Your task to perform on an android device: turn off improve location accuracy Image 0: 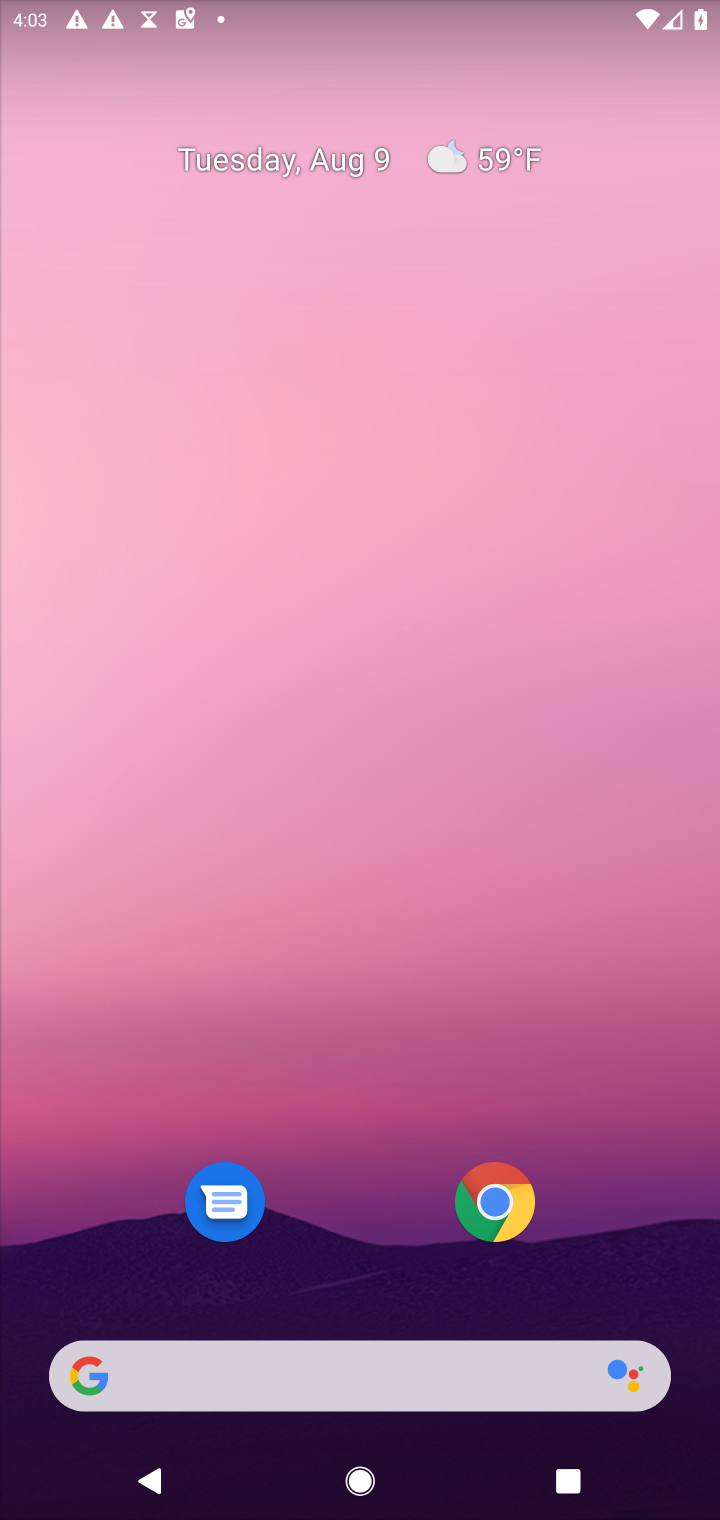
Step 0: press home button
Your task to perform on an android device: turn off improve location accuracy Image 1: 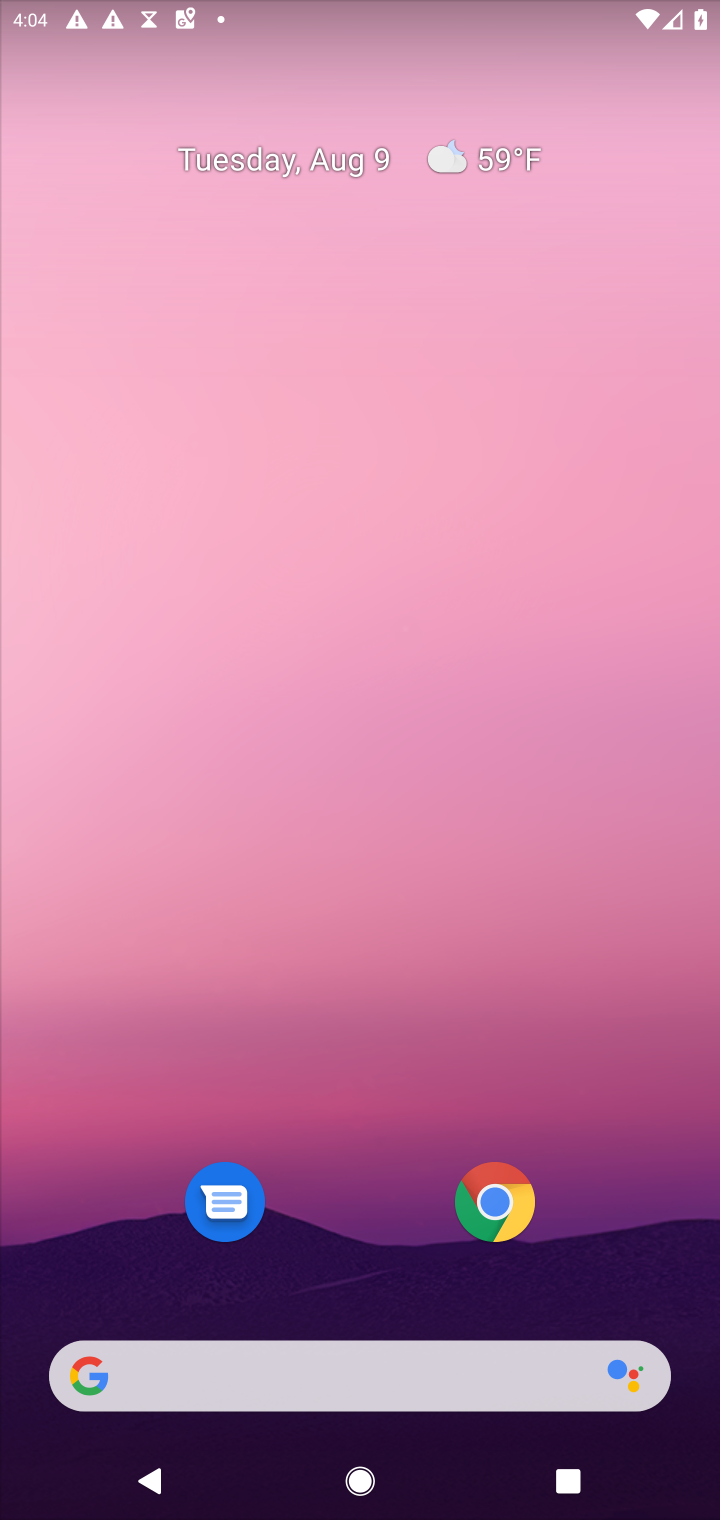
Step 1: drag from (342, 1247) to (463, 89)
Your task to perform on an android device: turn off improve location accuracy Image 2: 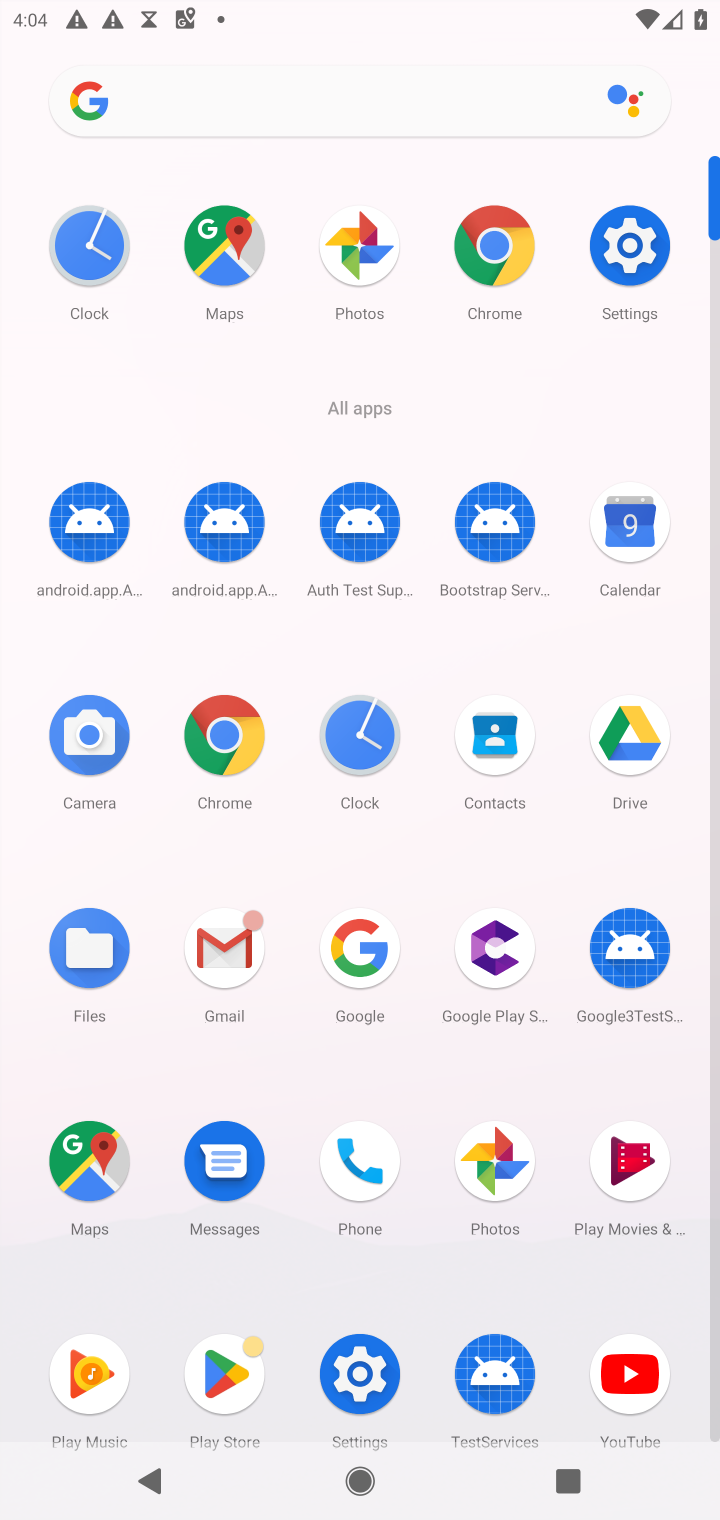
Step 2: click (632, 232)
Your task to perform on an android device: turn off improve location accuracy Image 3: 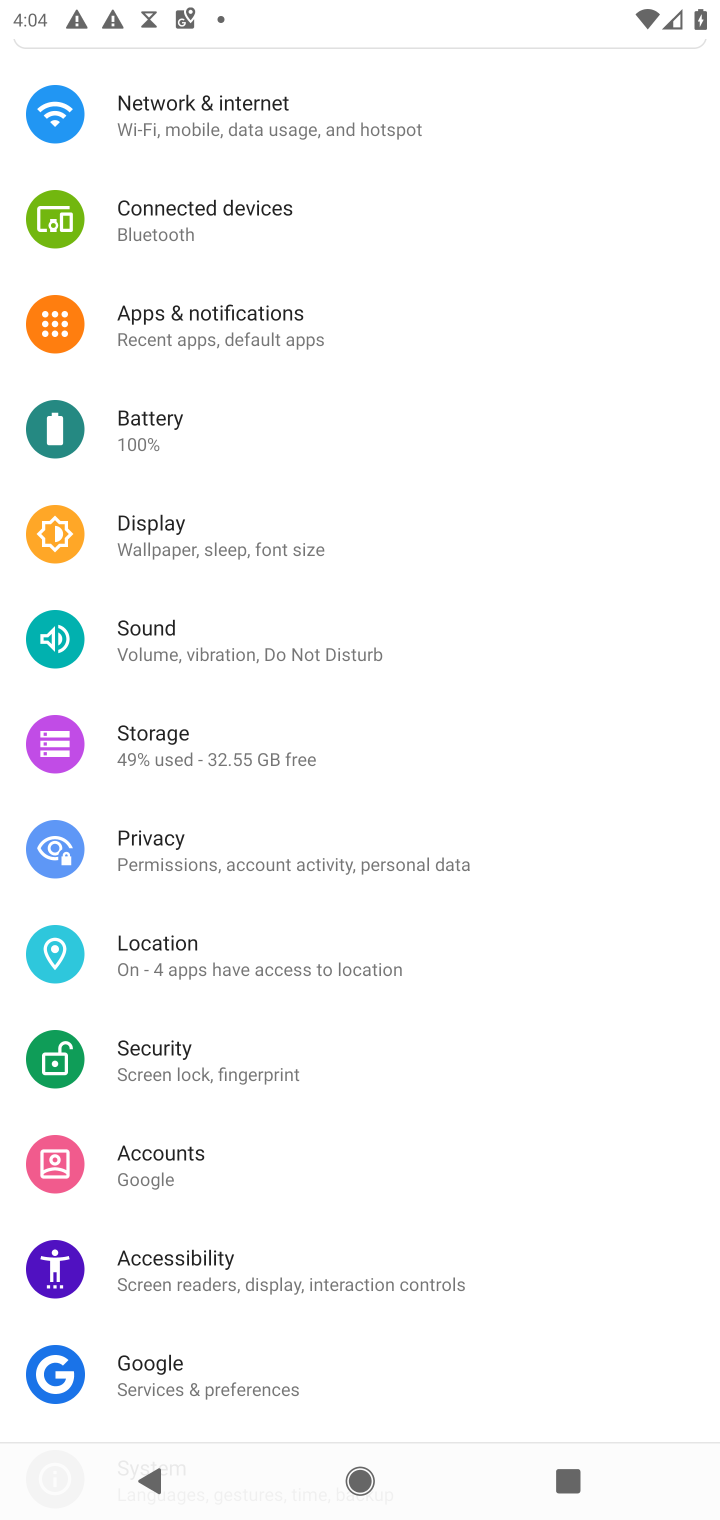
Step 3: click (217, 941)
Your task to perform on an android device: turn off improve location accuracy Image 4: 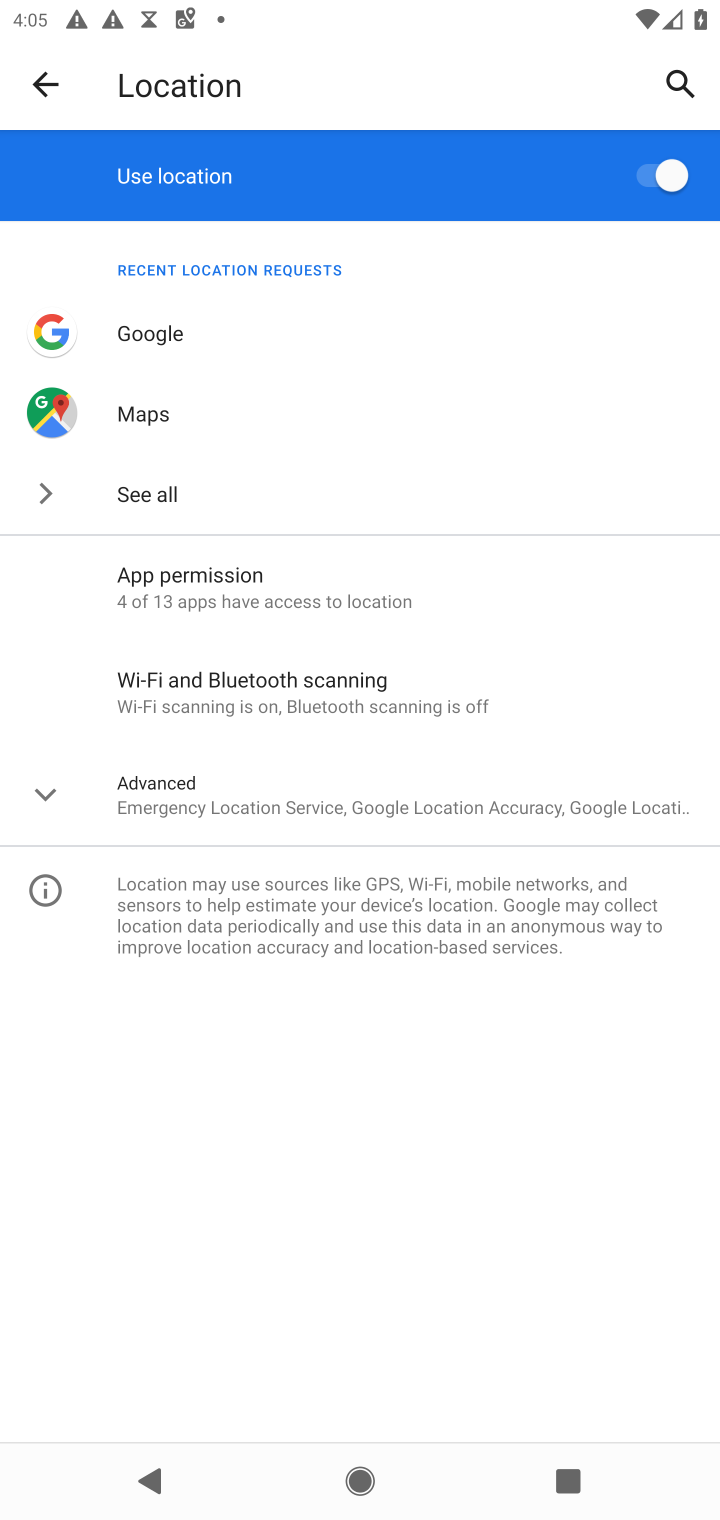
Step 4: click (63, 791)
Your task to perform on an android device: turn off improve location accuracy Image 5: 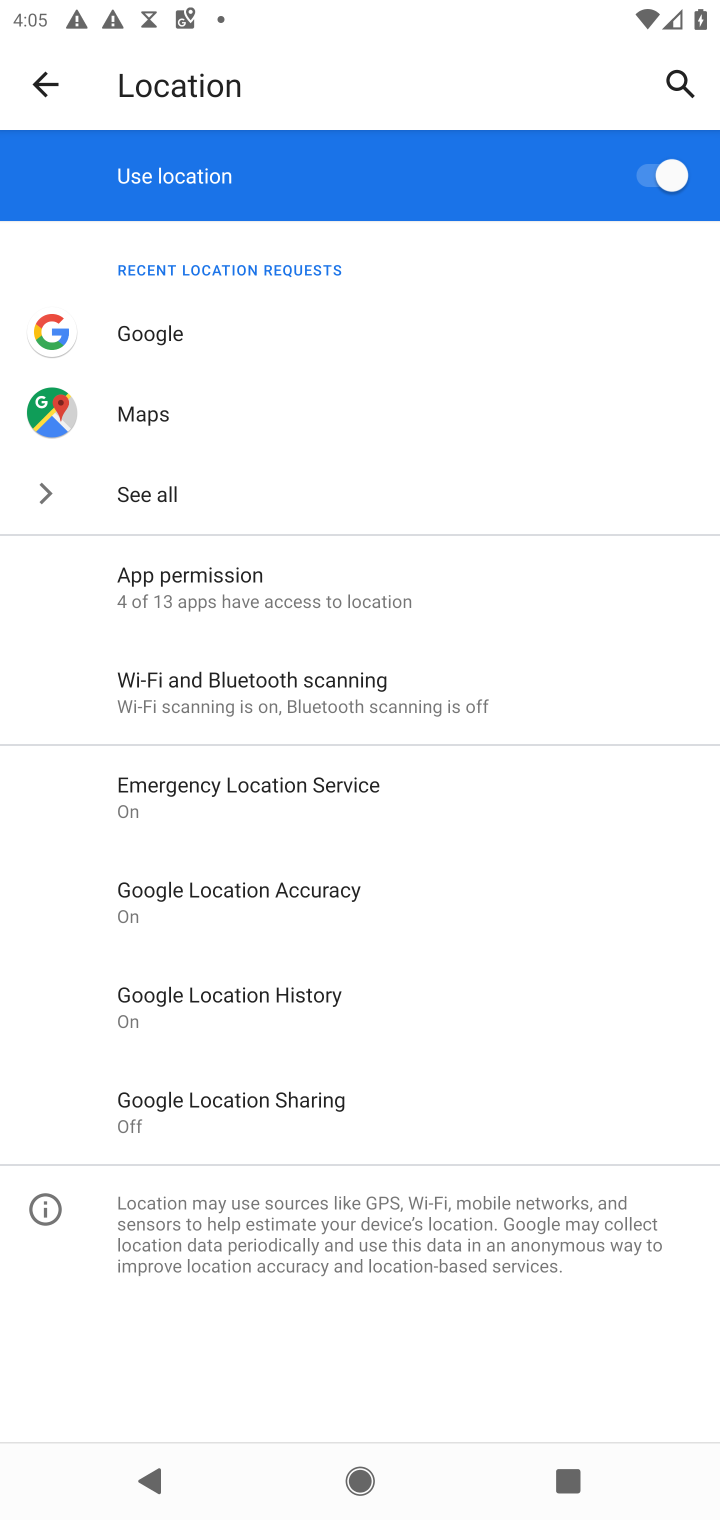
Step 5: click (238, 893)
Your task to perform on an android device: turn off improve location accuracy Image 6: 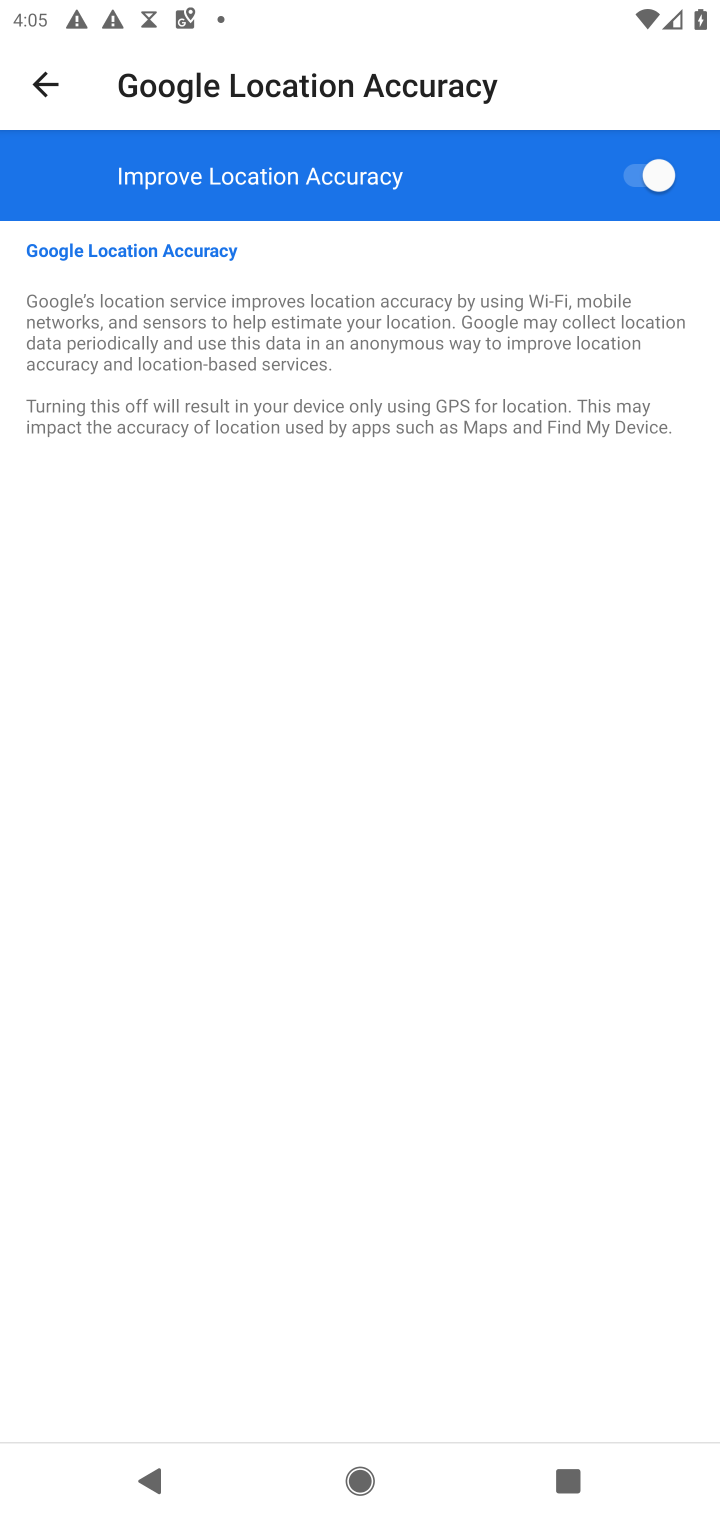
Step 6: click (635, 174)
Your task to perform on an android device: turn off improve location accuracy Image 7: 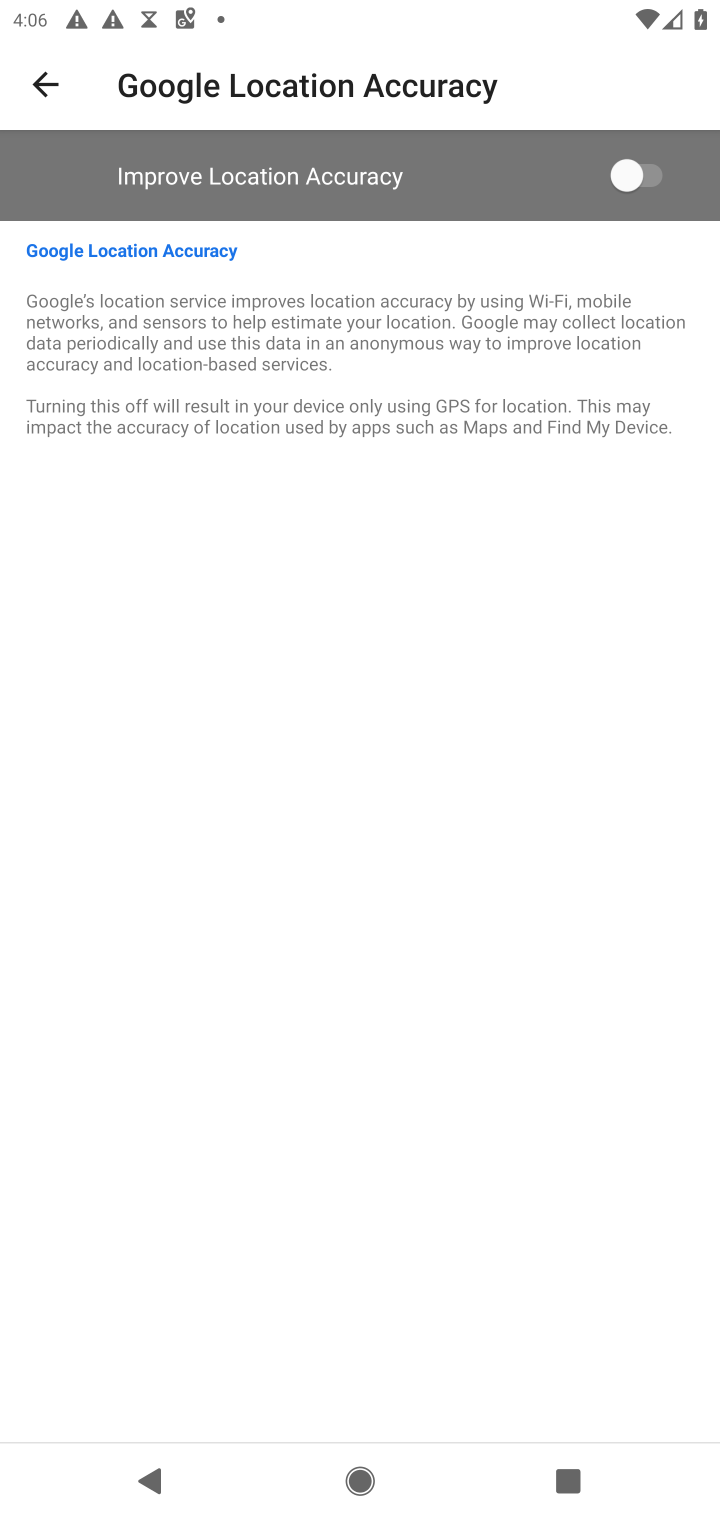
Step 7: task complete